Your task to perform on an android device: turn off notifications settings in the gmail app Image 0: 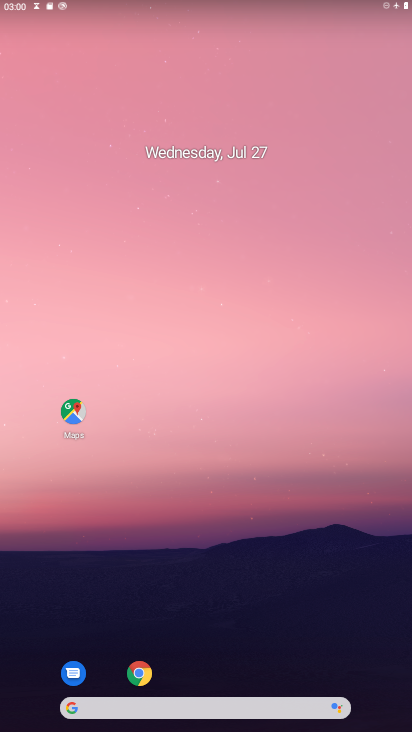
Step 0: drag from (209, 669) to (211, 249)
Your task to perform on an android device: turn off notifications settings in the gmail app Image 1: 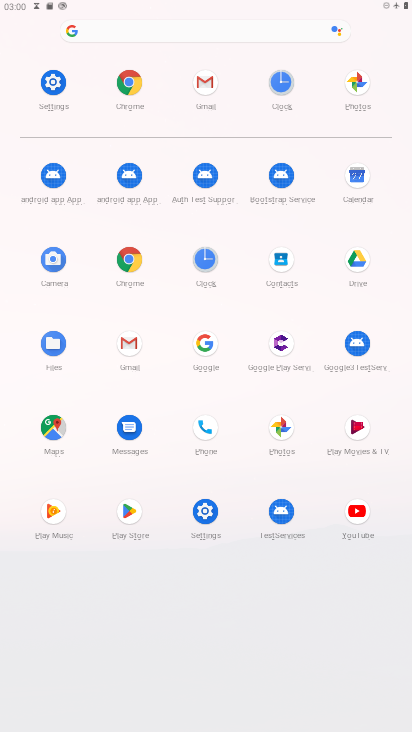
Step 1: click (133, 340)
Your task to perform on an android device: turn off notifications settings in the gmail app Image 2: 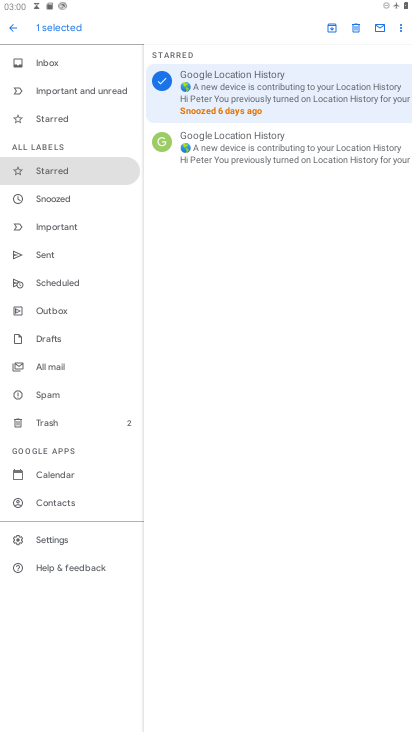
Step 2: click (55, 537)
Your task to perform on an android device: turn off notifications settings in the gmail app Image 3: 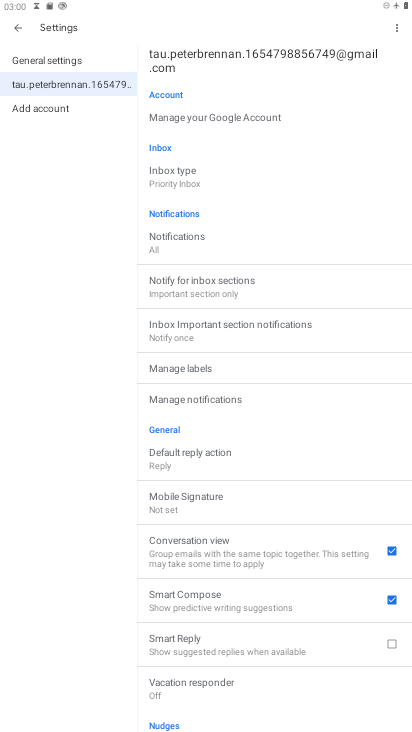
Step 3: click (198, 236)
Your task to perform on an android device: turn off notifications settings in the gmail app Image 4: 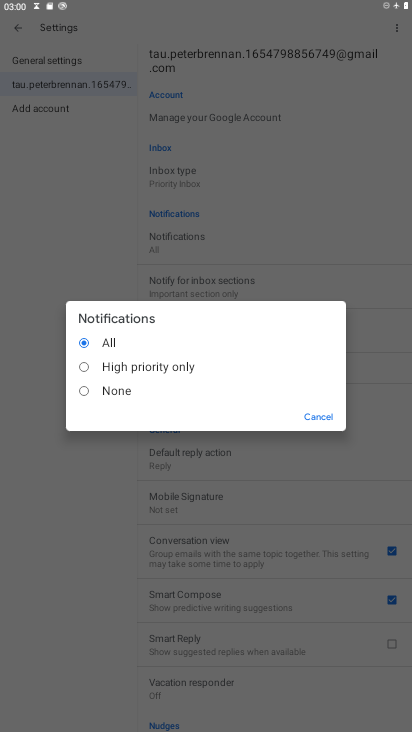
Step 4: click (115, 386)
Your task to perform on an android device: turn off notifications settings in the gmail app Image 5: 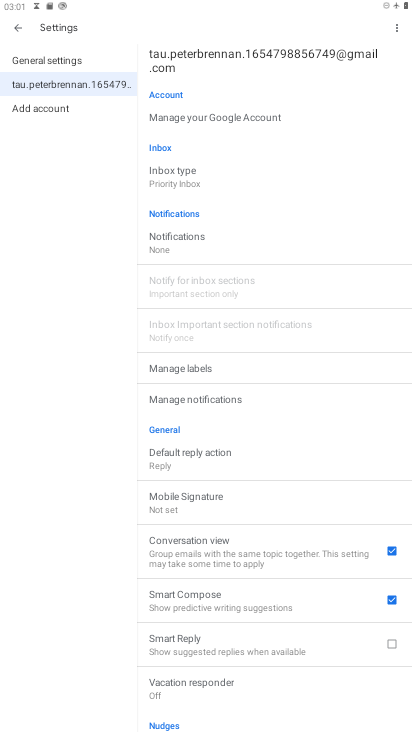
Step 5: task complete